Your task to perform on an android device: set an alarm Image 0: 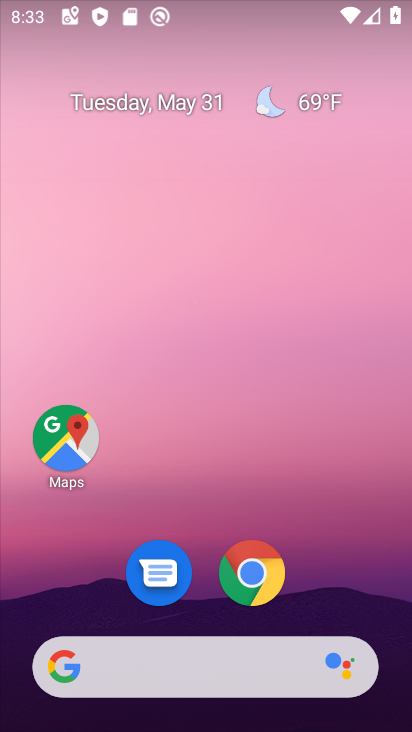
Step 0: drag from (208, 484) to (259, 56)
Your task to perform on an android device: set an alarm Image 1: 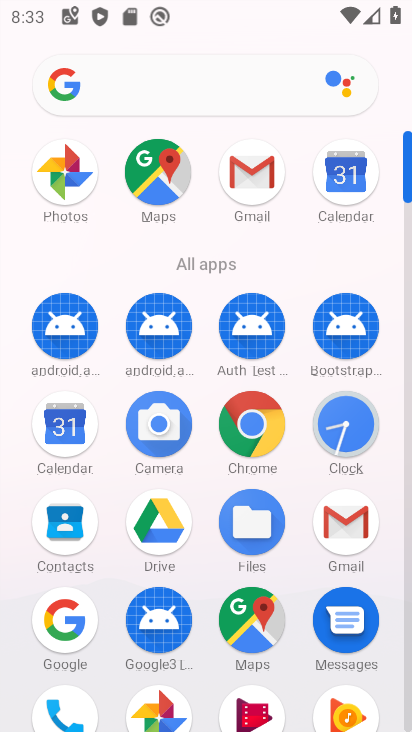
Step 1: click (344, 427)
Your task to perform on an android device: set an alarm Image 2: 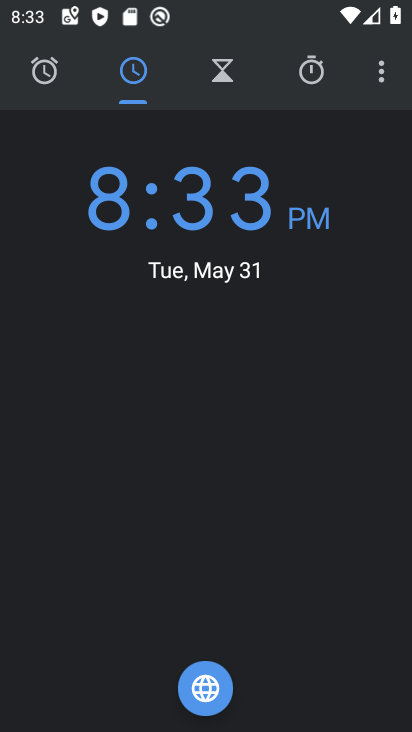
Step 2: click (51, 79)
Your task to perform on an android device: set an alarm Image 3: 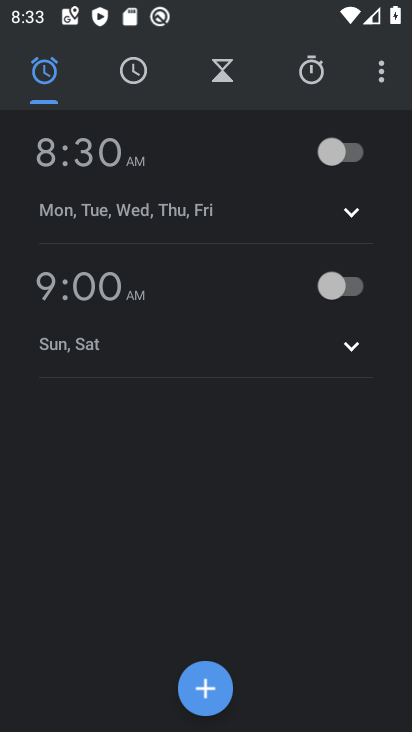
Step 3: click (333, 149)
Your task to perform on an android device: set an alarm Image 4: 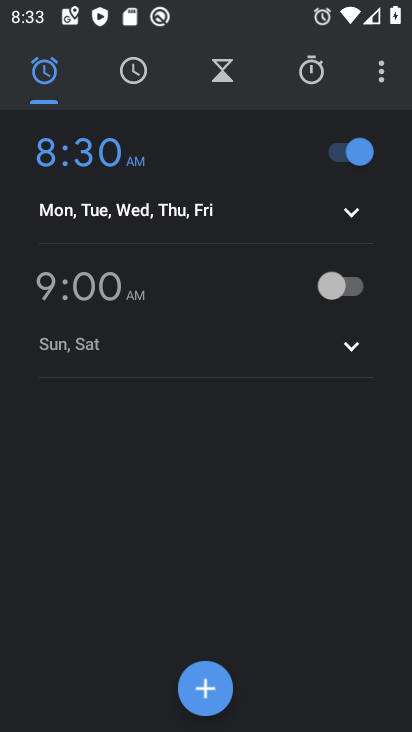
Step 4: task complete